Your task to perform on an android device: see sites visited before in the chrome app Image 0: 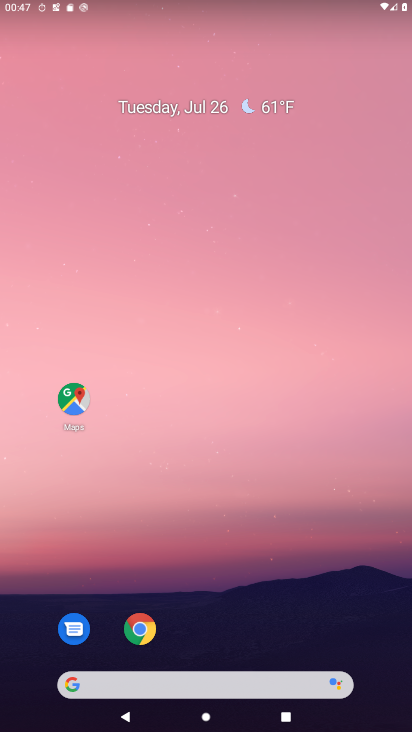
Step 0: click (133, 625)
Your task to perform on an android device: see sites visited before in the chrome app Image 1: 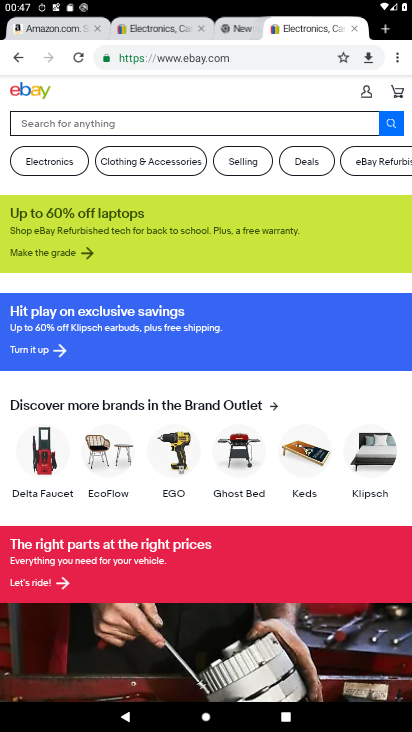
Step 1: task complete